Your task to perform on an android device: delete the emails in spam in the gmail app Image 0: 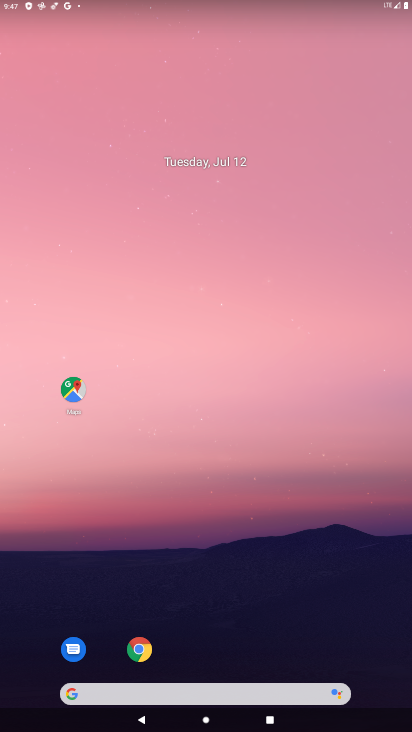
Step 0: drag from (322, 624) to (302, 231)
Your task to perform on an android device: delete the emails in spam in the gmail app Image 1: 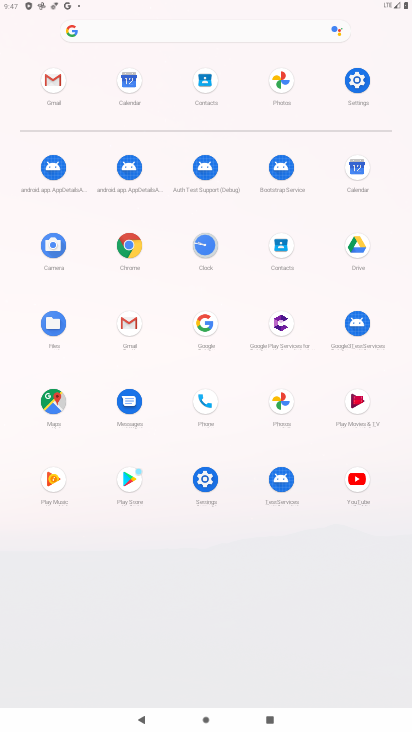
Step 1: click (58, 105)
Your task to perform on an android device: delete the emails in spam in the gmail app Image 2: 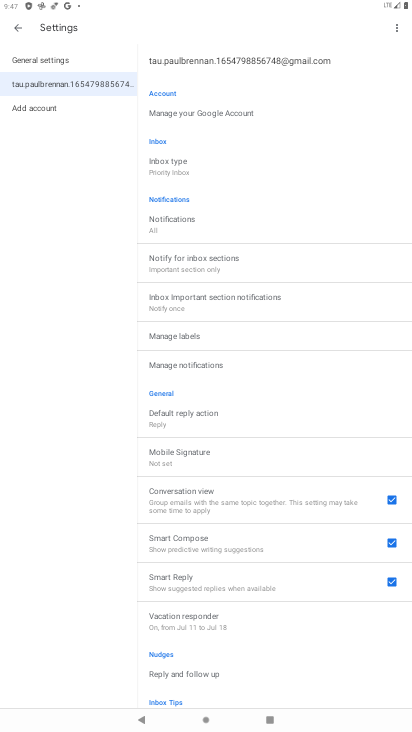
Step 2: task complete